Your task to perform on an android device: Open my contact list Image 0: 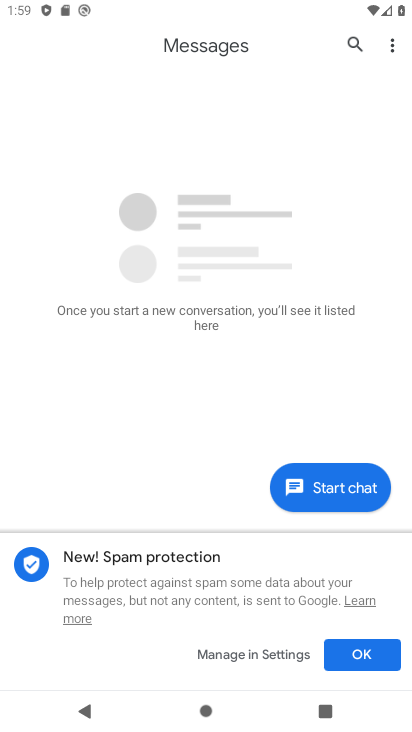
Step 0: press back button
Your task to perform on an android device: Open my contact list Image 1: 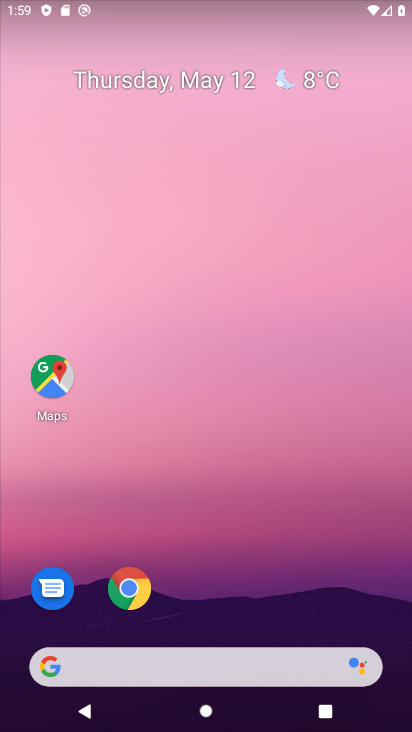
Step 1: drag from (220, 508) to (211, 11)
Your task to perform on an android device: Open my contact list Image 2: 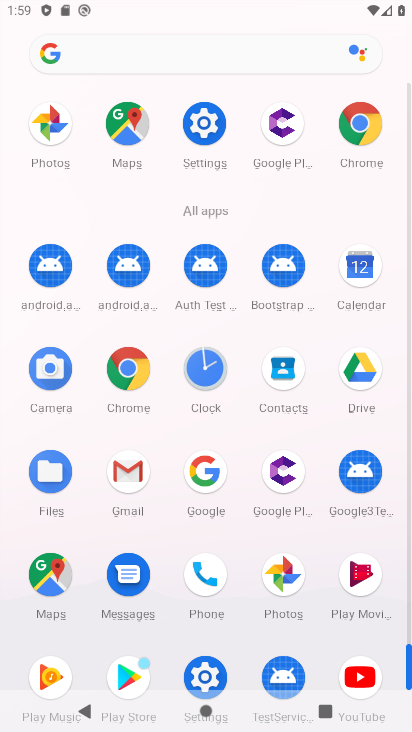
Step 2: drag from (7, 538) to (8, 259)
Your task to perform on an android device: Open my contact list Image 3: 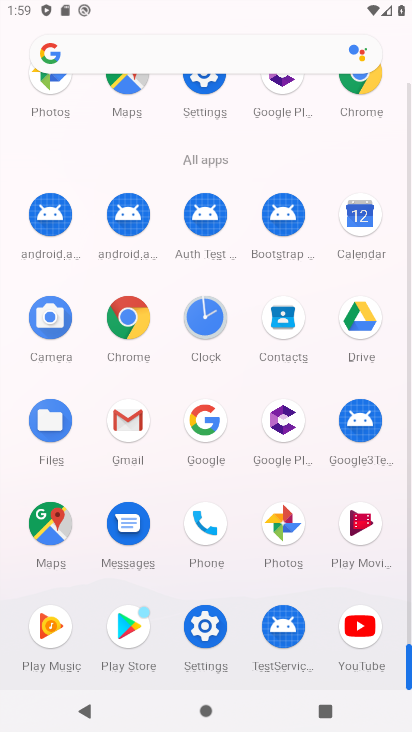
Step 3: click (281, 316)
Your task to perform on an android device: Open my contact list Image 4: 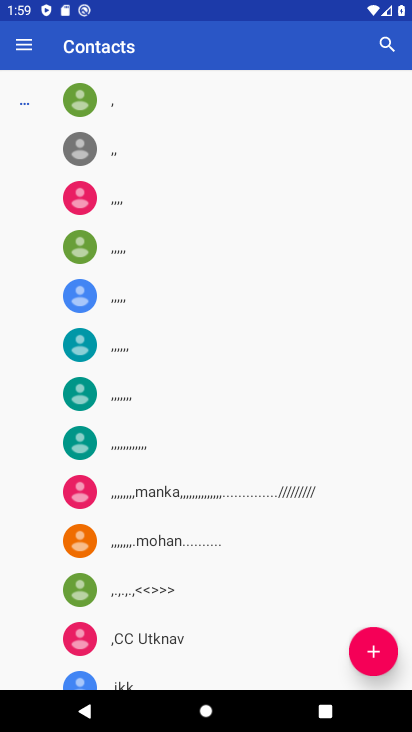
Step 4: task complete